Your task to perform on an android device: Open my contact list Image 0: 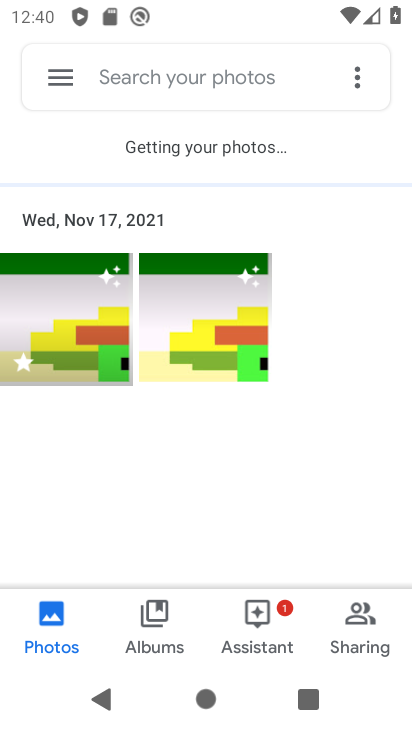
Step 0: press back button
Your task to perform on an android device: Open my contact list Image 1: 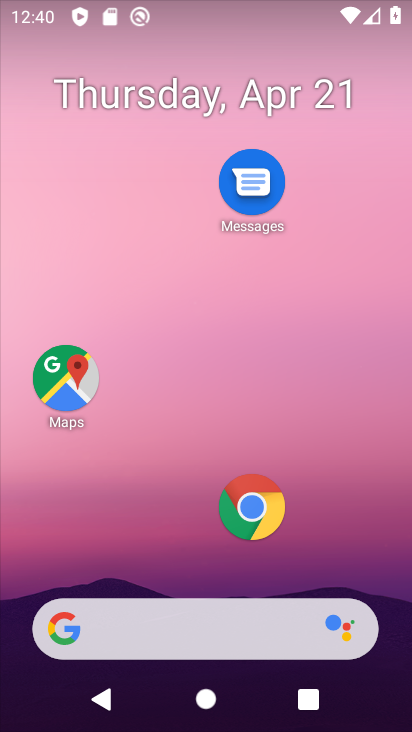
Step 1: drag from (115, 598) to (187, 36)
Your task to perform on an android device: Open my contact list Image 2: 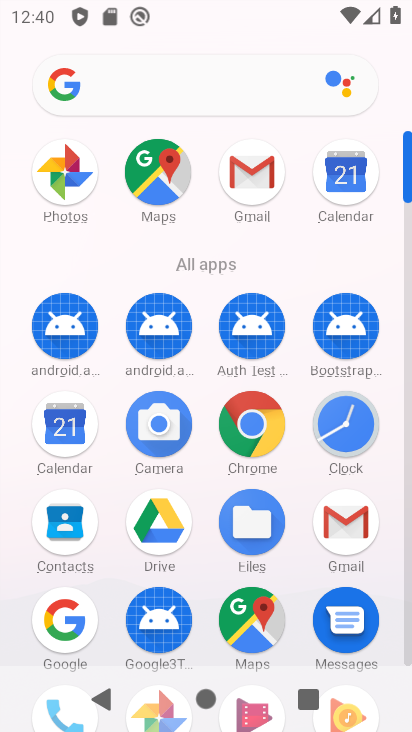
Step 2: click (69, 537)
Your task to perform on an android device: Open my contact list Image 3: 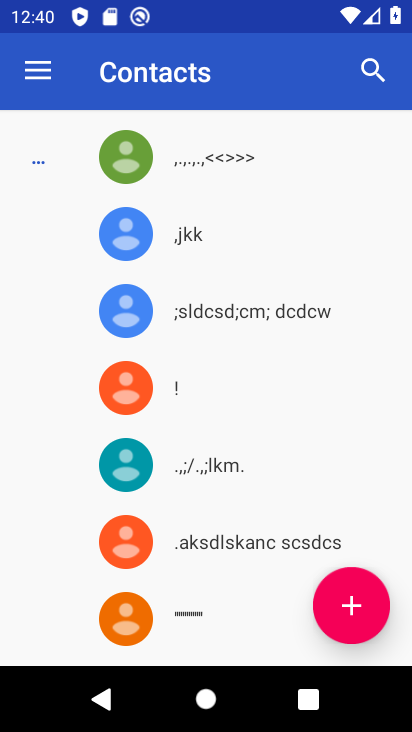
Step 3: task complete